Your task to perform on an android device: Open location settings Image 0: 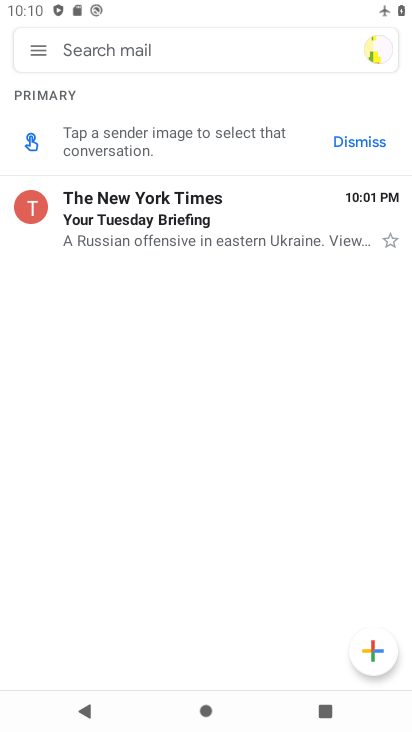
Step 0: press back button
Your task to perform on an android device: Open location settings Image 1: 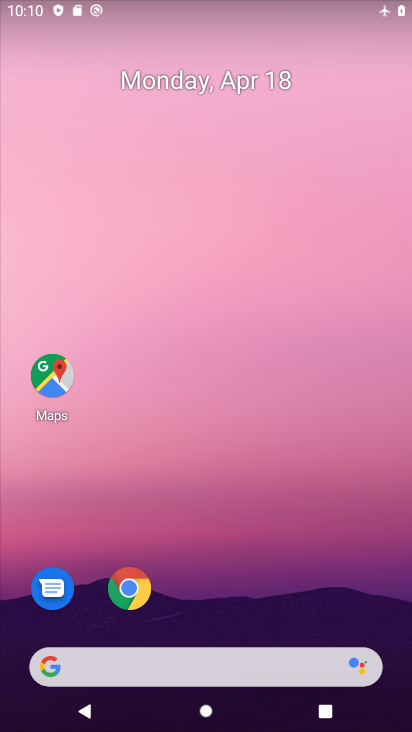
Step 1: drag from (271, 587) to (287, 24)
Your task to perform on an android device: Open location settings Image 2: 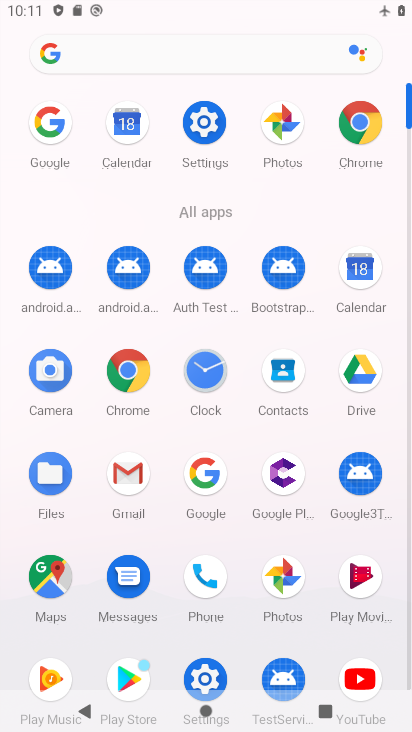
Step 2: click (203, 139)
Your task to perform on an android device: Open location settings Image 3: 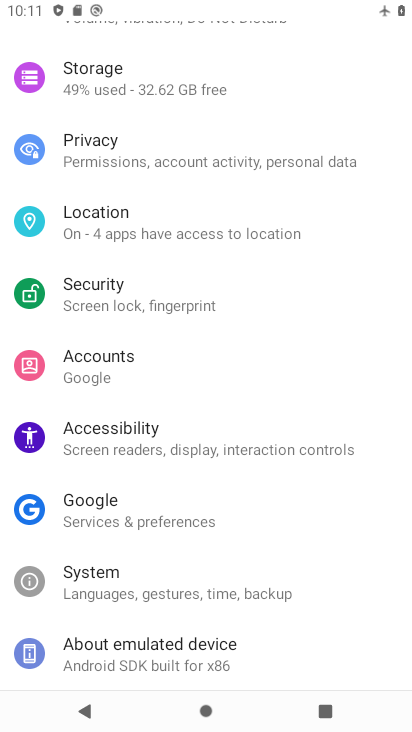
Step 3: click (203, 231)
Your task to perform on an android device: Open location settings Image 4: 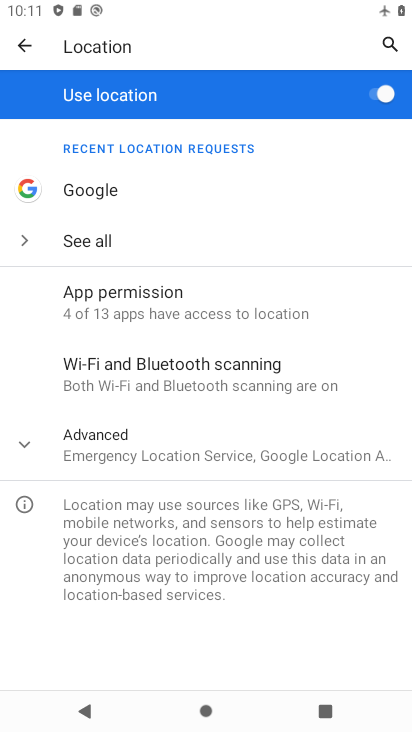
Step 4: task complete